Your task to perform on an android device: Search for razer blade on target, select the first entry, and add it to the cart. Image 0: 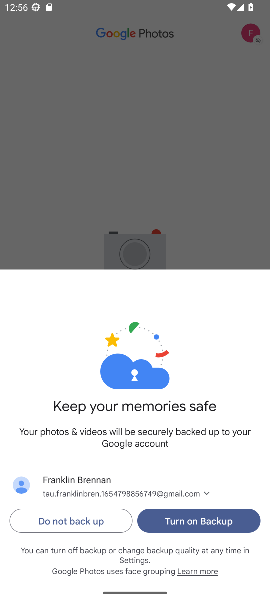
Step 0: press home button
Your task to perform on an android device: Search for razer blade on target, select the first entry, and add it to the cart. Image 1: 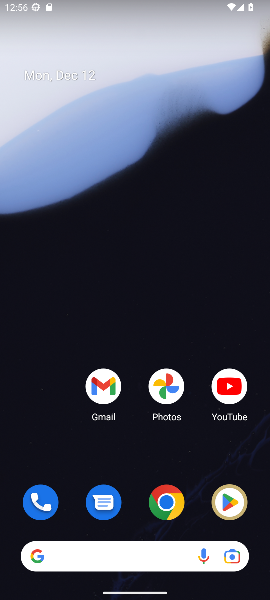
Step 1: click (159, 524)
Your task to perform on an android device: Search for razer blade on target, select the first entry, and add it to the cart. Image 2: 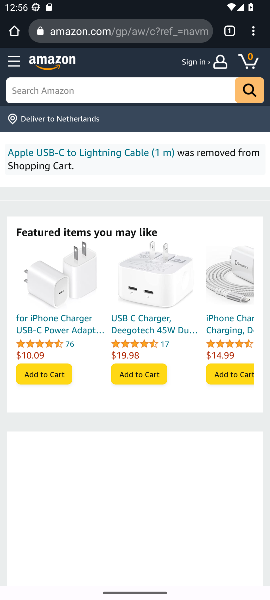
Step 2: click (154, 39)
Your task to perform on an android device: Search for razer blade on target, select the first entry, and add it to the cart. Image 3: 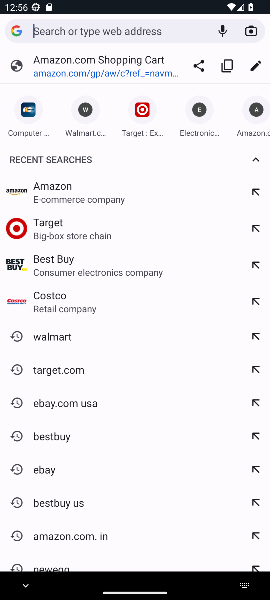
Step 3: click (101, 238)
Your task to perform on an android device: Search for razer blade on target, select the first entry, and add it to the cart. Image 4: 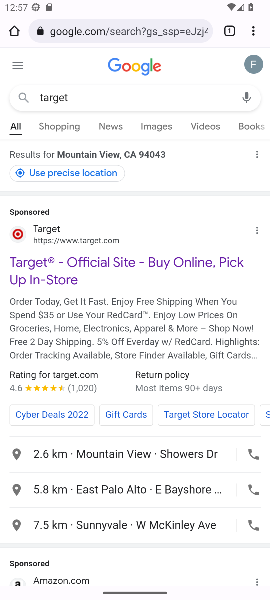
Step 4: click (107, 259)
Your task to perform on an android device: Search for razer blade on target, select the first entry, and add it to the cart. Image 5: 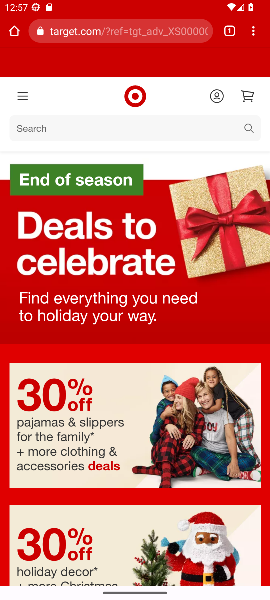
Step 5: click (116, 138)
Your task to perform on an android device: Search for razer blade on target, select the first entry, and add it to the cart. Image 6: 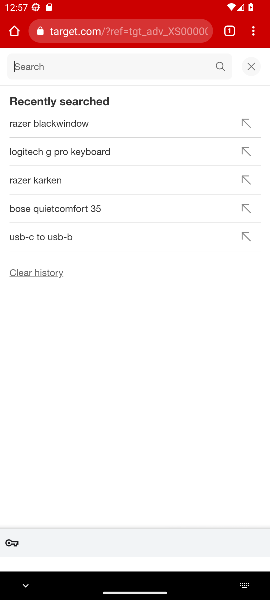
Step 6: type "razer blade"
Your task to perform on an android device: Search for razer blade on target, select the first entry, and add it to the cart. Image 7: 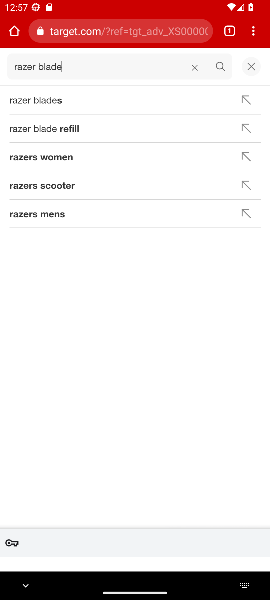
Step 7: click (213, 74)
Your task to perform on an android device: Search for razer blade on target, select the first entry, and add it to the cart. Image 8: 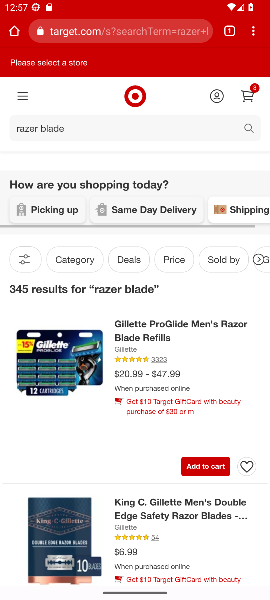
Step 8: click (199, 457)
Your task to perform on an android device: Search for razer blade on target, select the first entry, and add it to the cart. Image 9: 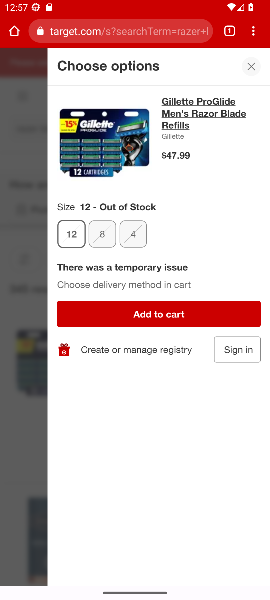
Step 9: click (207, 315)
Your task to perform on an android device: Search for razer blade on target, select the first entry, and add it to the cart. Image 10: 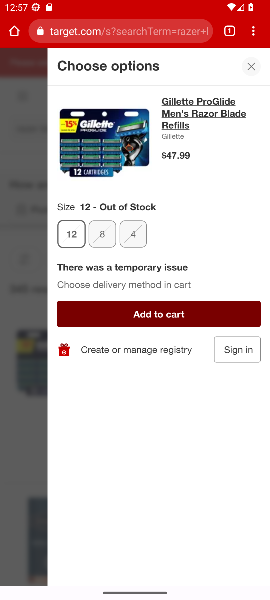
Step 10: task complete